Your task to perform on an android device: change notification settings in the gmail app Image 0: 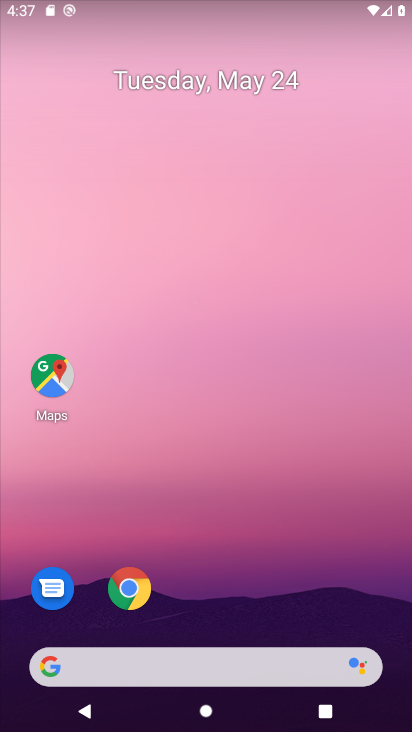
Step 0: drag from (226, 626) to (322, 77)
Your task to perform on an android device: change notification settings in the gmail app Image 1: 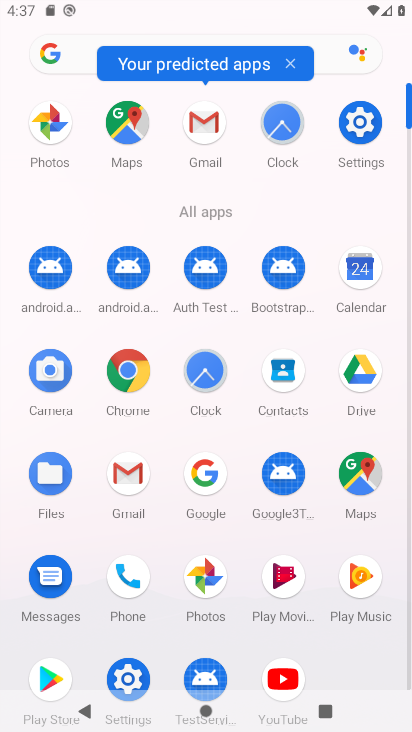
Step 1: click (210, 139)
Your task to perform on an android device: change notification settings in the gmail app Image 2: 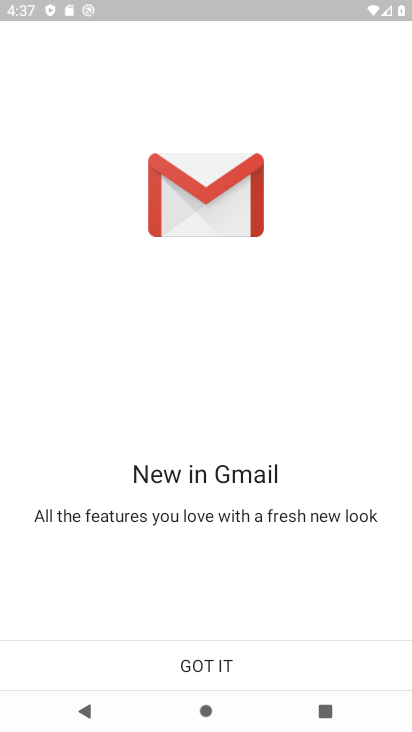
Step 2: click (235, 653)
Your task to perform on an android device: change notification settings in the gmail app Image 3: 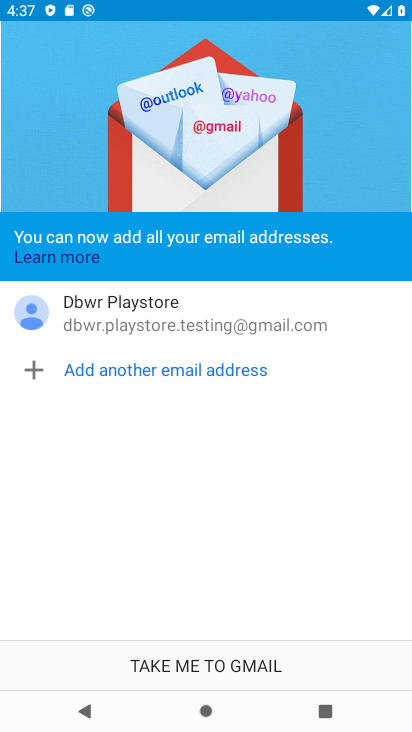
Step 3: click (235, 653)
Your task to perform on an android device: change notification settings in the gmail app Image 4: 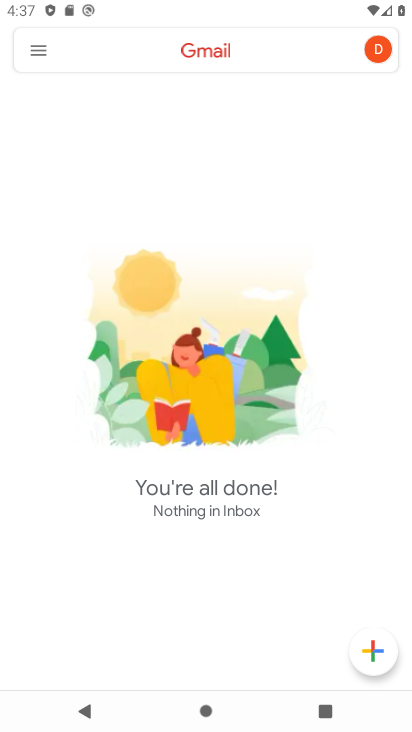
Step 4: click (40, 50)
Your task to perform on an android device: change notification settings in the gmail app Image 5: 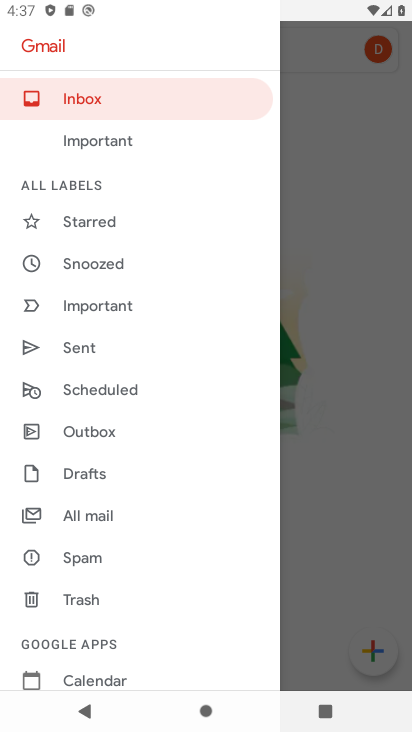
Step 5: drag from (116, 639) to (92, 135)
Your task to perform on an android device: change notification settings in the gmail app Image 6: 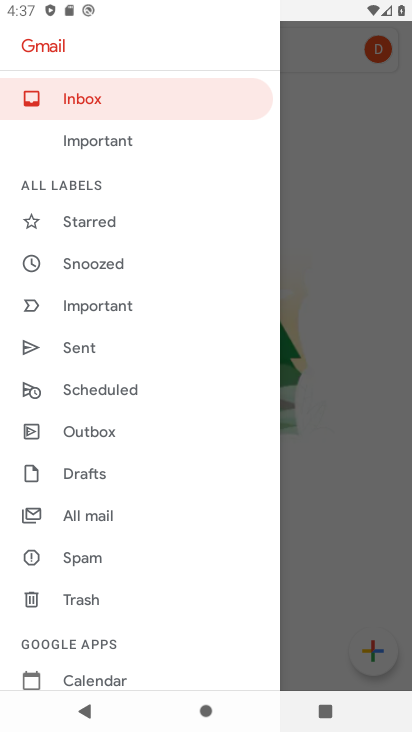
Step 6: drag from (117, 644) to (103, 221)
Your task to perform on an android device: change notification settings in the gmail app Image 7: 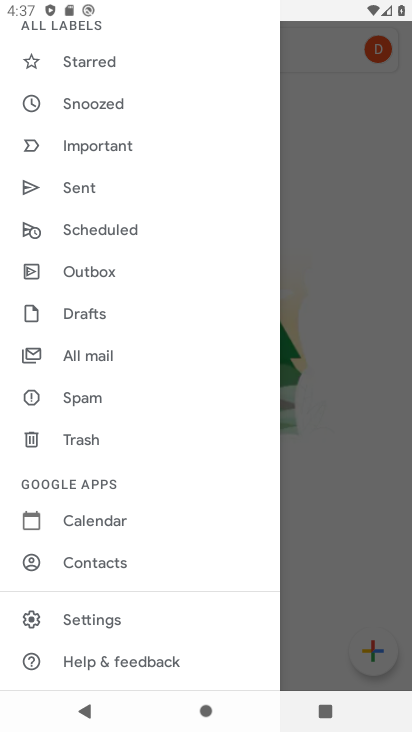
Step 7: click (123, 620)
Your task to perform on an android device: change notification settings in the gmail app Image 8: 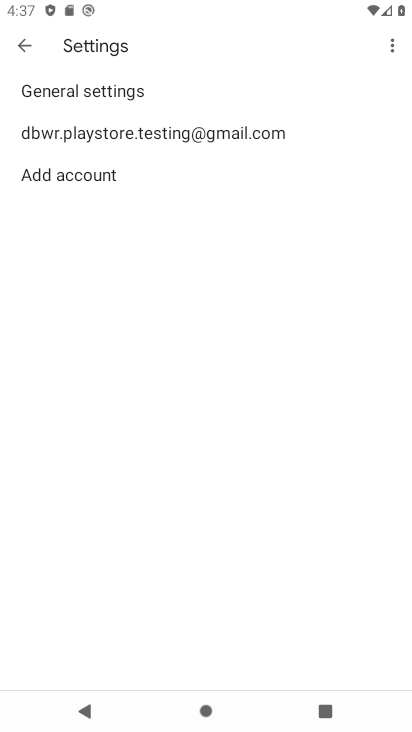
Step 8: click (230, 128)
Your task to perform on an android device: change notification settings in the gmail app Image 9: 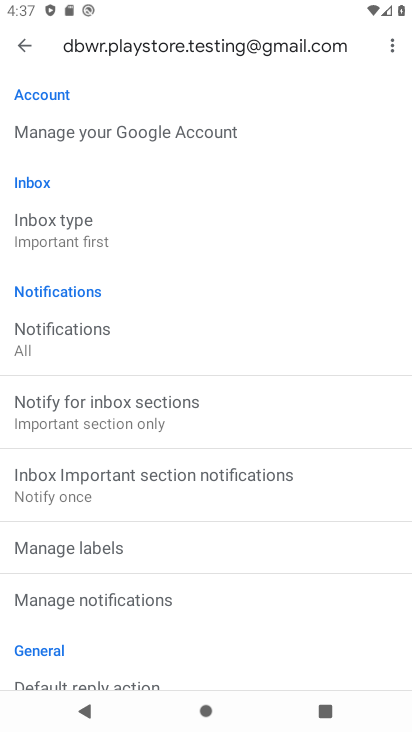
Step 9: click (221, 589)
Your task to perform on an android device: change notification settings in the gmail app Image 10: 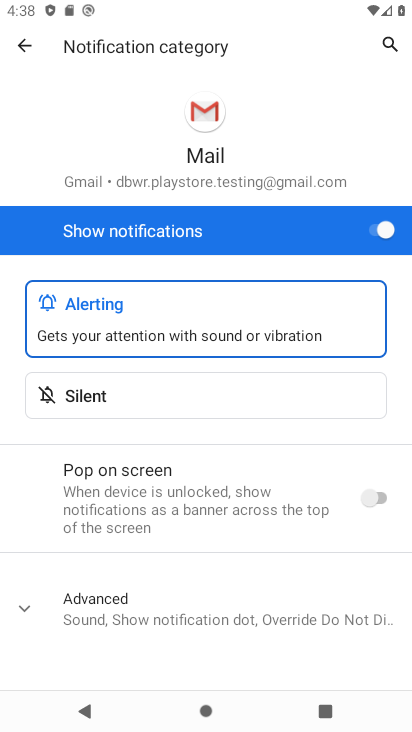
Step 10: click (212, 409)
Your task to perform on an android device: change notification settings in the gmail app Image 11: 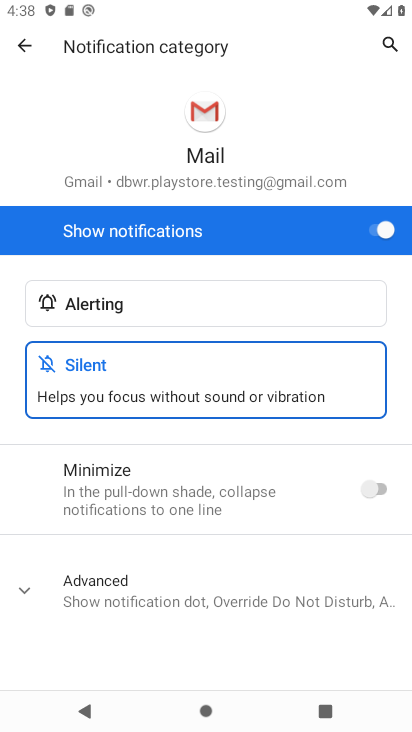
Step 11: click (365, 484)
Your task to perform on an android device: change notification settings in the gmail app Image 12: 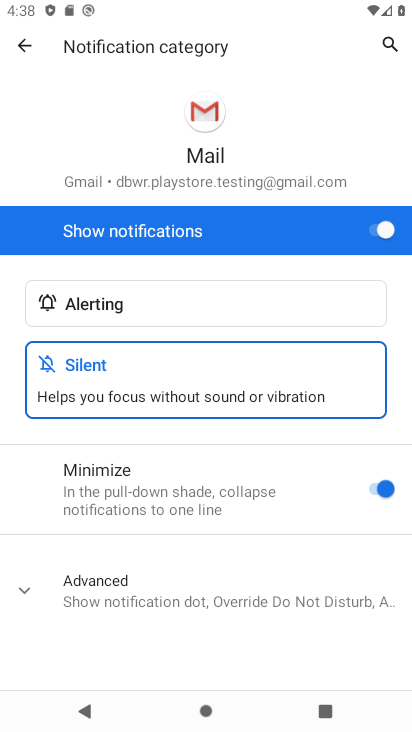
Step 12: task complete